Your task to perform on an android device: Open sound settings Image 0: 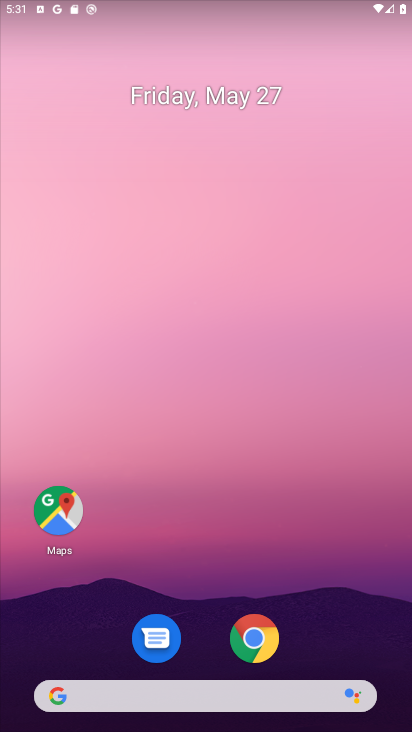
Step 0: click (253, 630)
Your task to perform on an android device: Open sound settings Image 1: 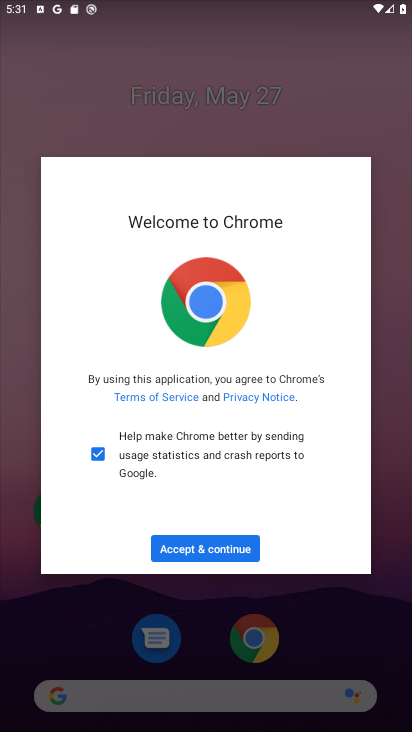
Step 1: press home button
Your task to perform on an android device: Open sound settings Image 2: 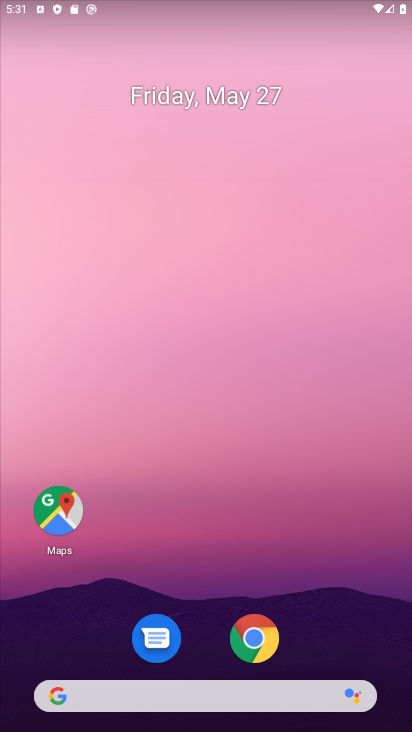
Step 2: drag from (204, 642) to (385, 48)
Your task to perform on an android device: Open sound settings Image 3: 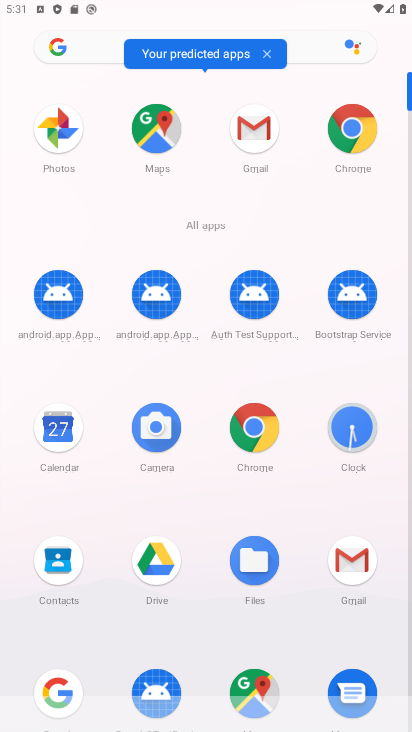
Step 3: drag from (198, 613) to (191, 96)
Your task to perform on an android device: Open sound settings Image 4: 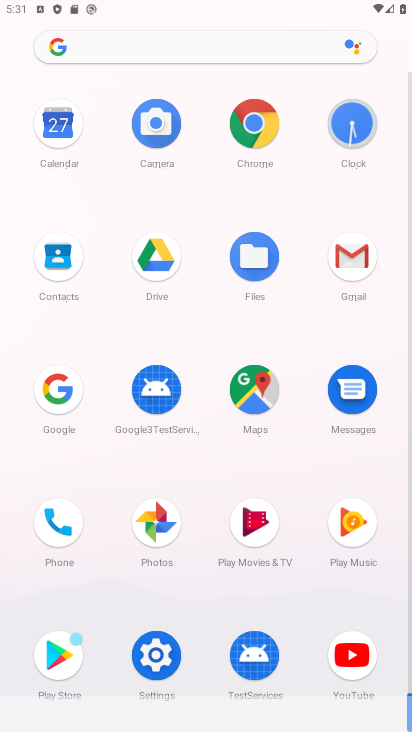
Step 4: click (161, 641)
Your task to perform on an android device: Open sound settings Image 5: 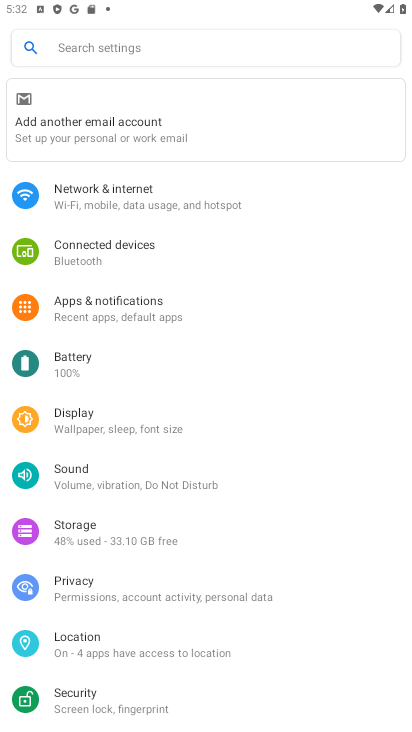
Step 5: click (114, 490)
Your task to perform on an android device: Open sound settings Image 6: 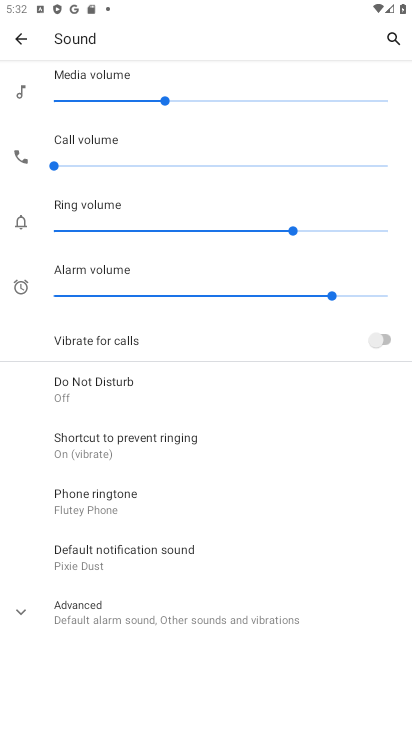
Step 6: task complete